Your task to perform on an android device: open app "Lyft - Rideshare, Bikes, Scooters & Transit" (install if not already installed) Image 0: 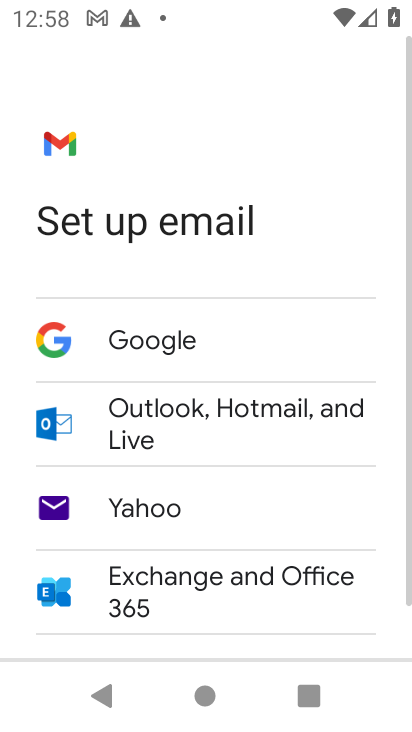
Step 0: press home button
Your task to perform on an android device: open app "Lyft - Rideshare, Bikes, Scooters & Transit" (install if not already installed) Image 1: 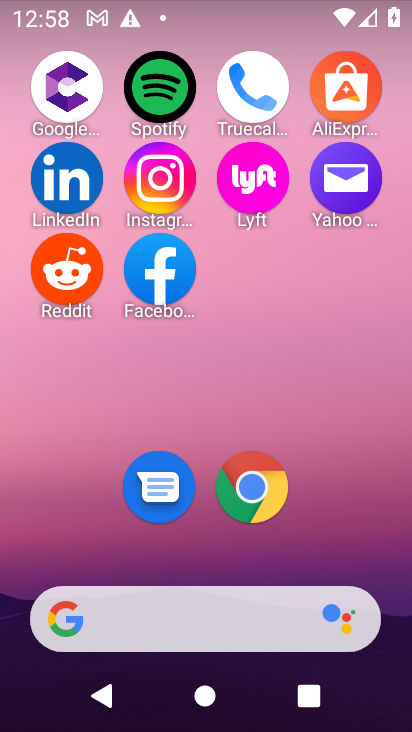
Step 1: click (243, 204)
Your task to perform on an android device: open app "Lyft - Rideshare, Bikes, Scooters & Transit" (install if not already installed) Image 2: 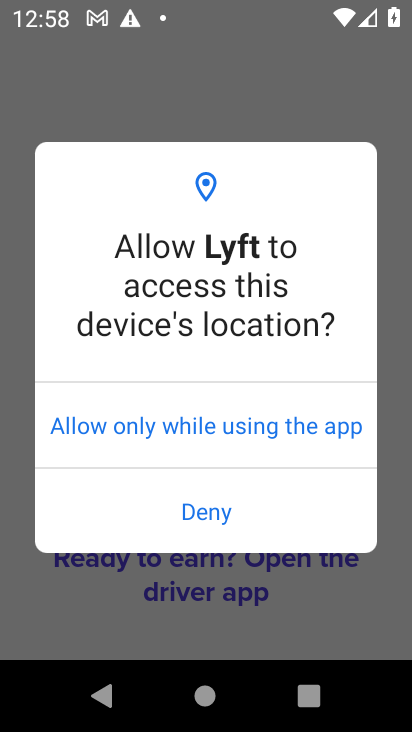
Step 2: click (234, 426)
Your task to perform on an android device: open app "Lyft - Rideshare, Bikes, Scooters & Transit" (install if not already installed) Image 3: 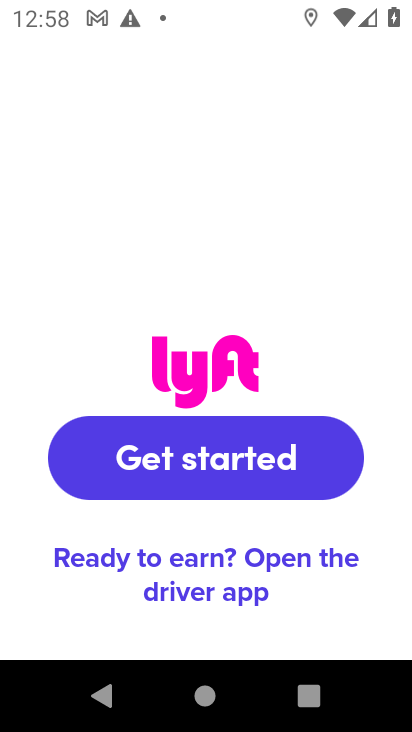
Step 3: task complete